Your task to perform on an android device: Go to Android settings Image 0: 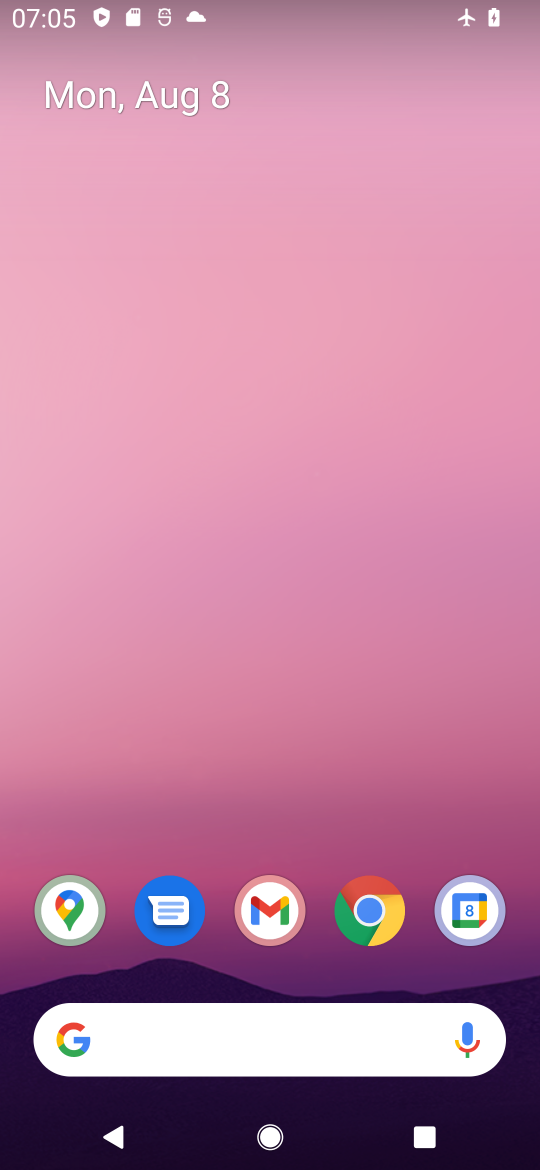
Step 0: drag from (267, 1047) to (295, 477)
Your task to perform on an android device: Go to Android settings Image 1: 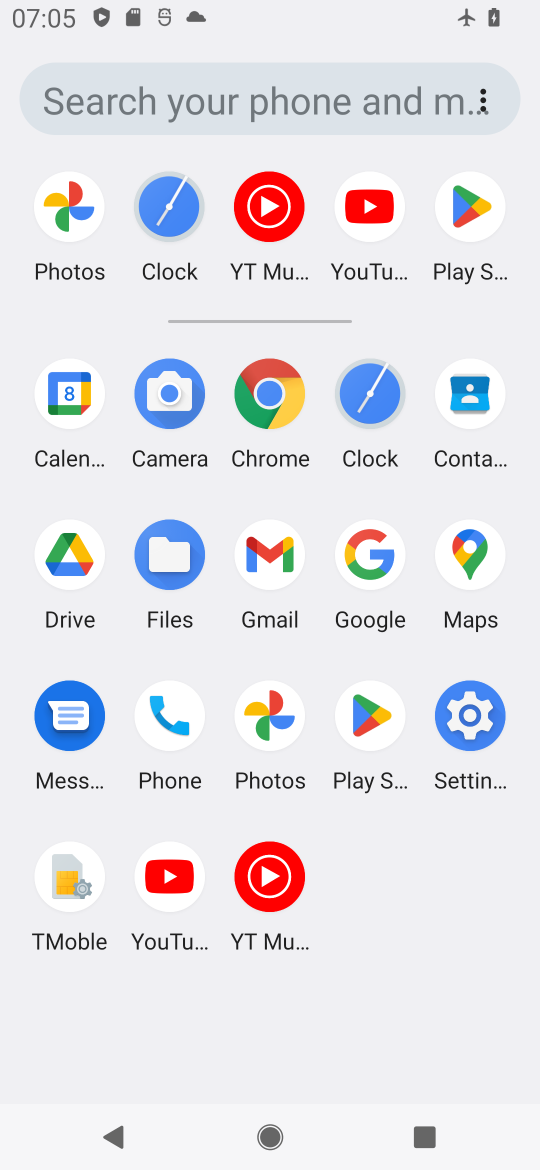
Step 1: click (468, 717)
Your task to perform on an android device: Go to Android settings Image 2: 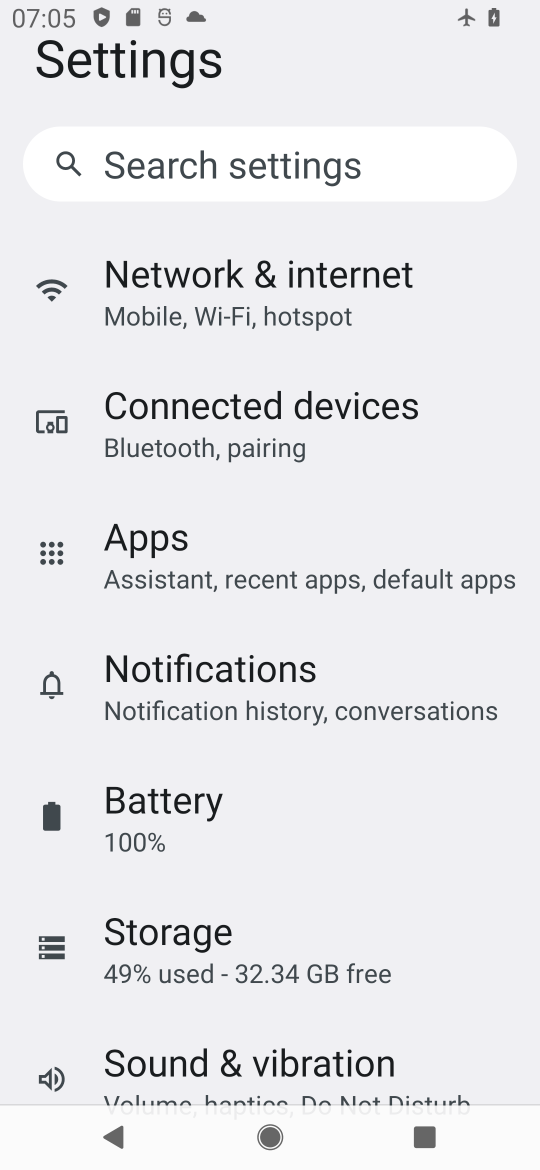
Step 2: task complete